Your task to perform on an android device: change notifications settings Image 0: 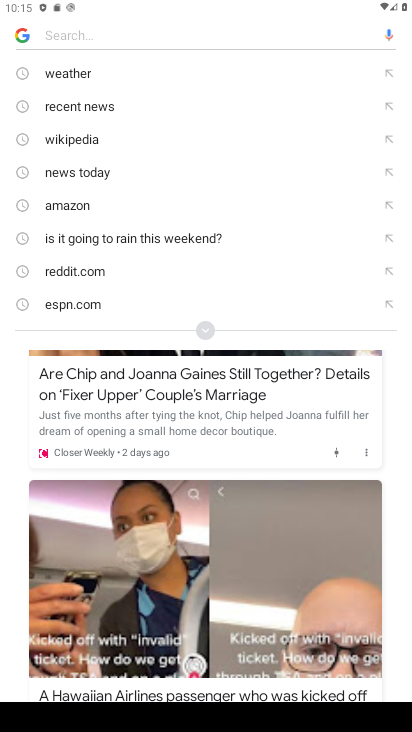
Step 0: press back button
Your task to perform on an android device: change notifications settings Image 1: 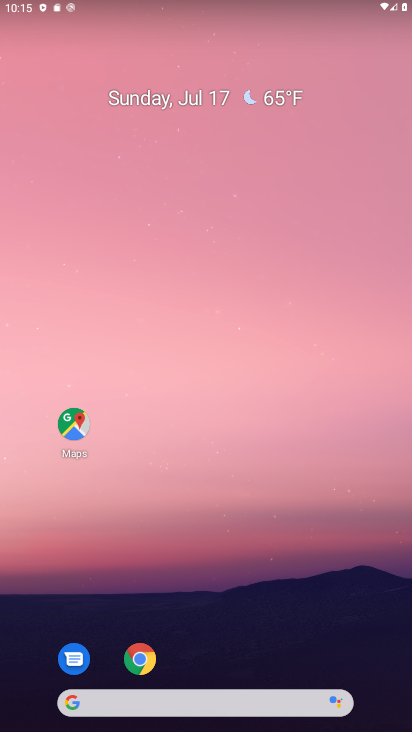
Step 1: drag from (189, 678) to (171, 149)
Your task to perform on an android device: change notifications settings Image 2: 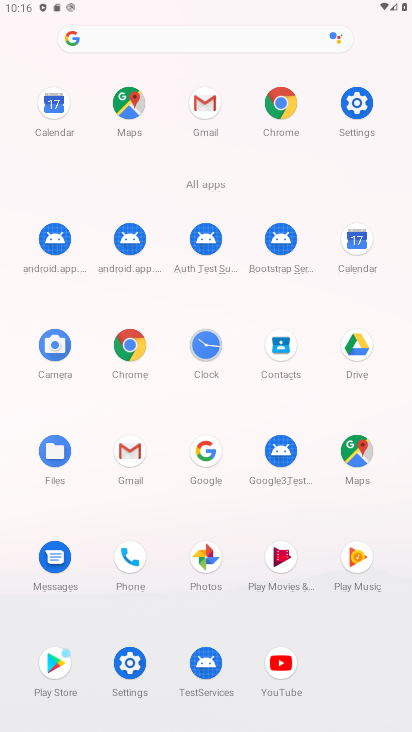
Step 2: click (134, 667)
Your task to perform on an android device: change notifications settings Image 3: 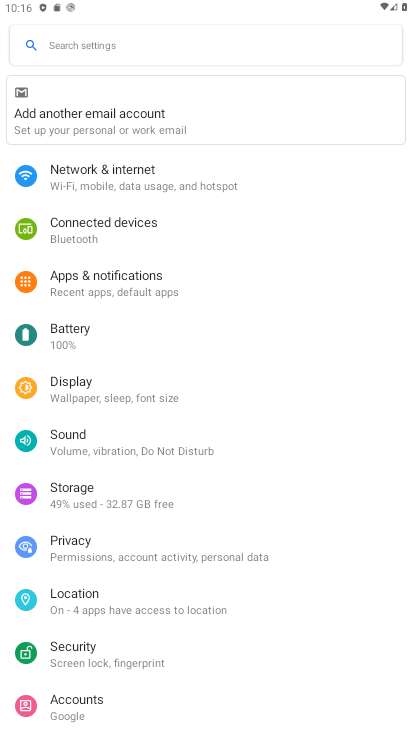
Step 3: click (95, 435)
Your task to perform on an android device: change notifications settings Image 4: 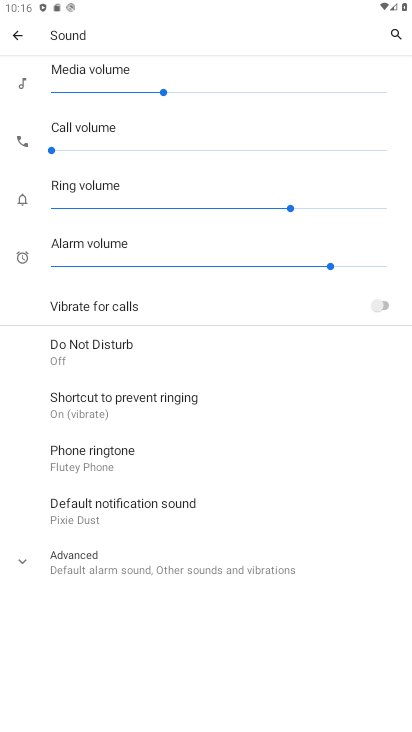
Step 4: click (382, 303)
Your task to perform on an android device: change notifications settings Image 5: 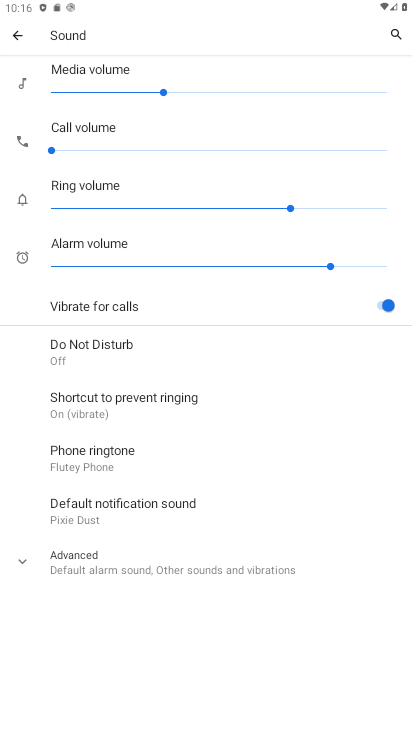
Step 5: task complete